Your task to perform on an android device: turn pop-ups on in chrome Image 0: 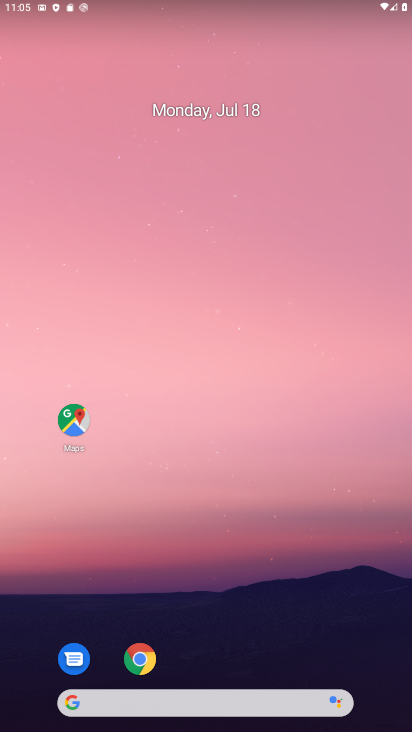
Step 0: click (147, 663)
Your task to perform on an android device: turn pop-ups on in chrome Image 1: 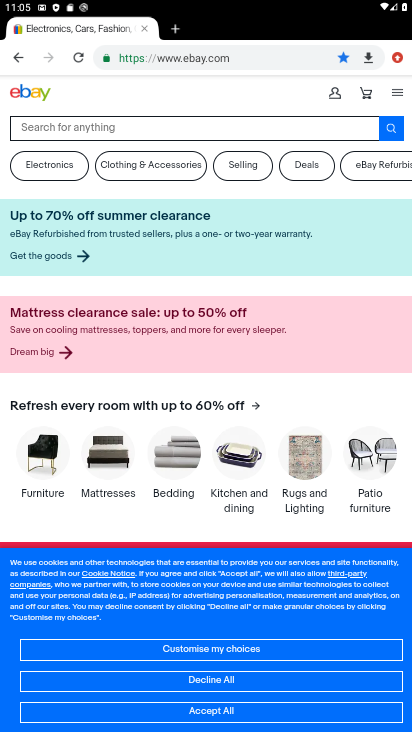
Step 1: drag from (400, 58) to (275, 422)
Your task to perform on an android device: turn pop-ups on in chrome Image 2: 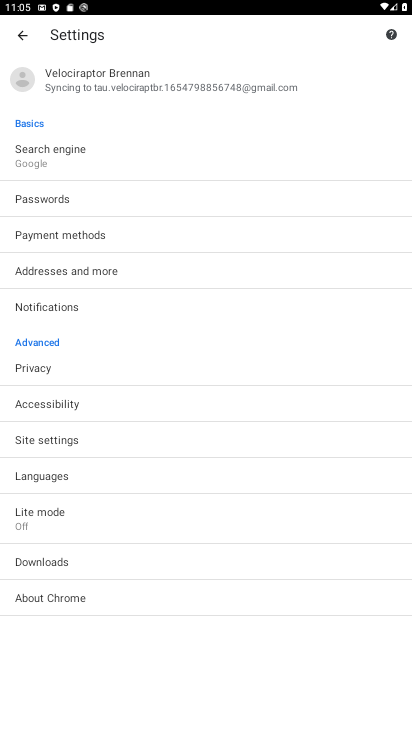
Step 2: click (40, 447)
Your task to perform on an android device: turn pop-ups on in chrome Image 3: 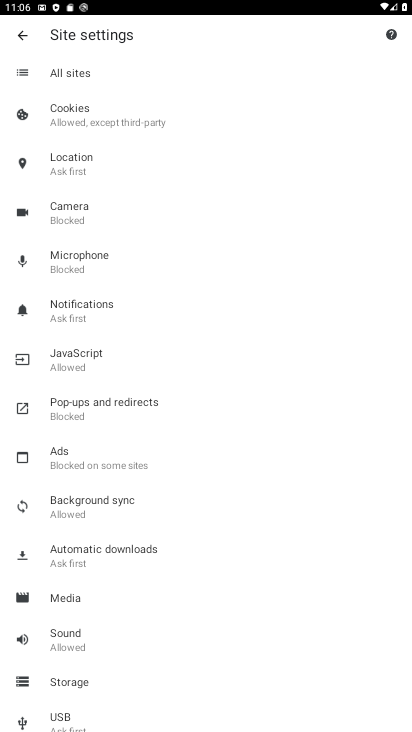
Step 3: click (77, 419)
Your task to perform on an android device: turn pop-ups on in chrome Image 4: 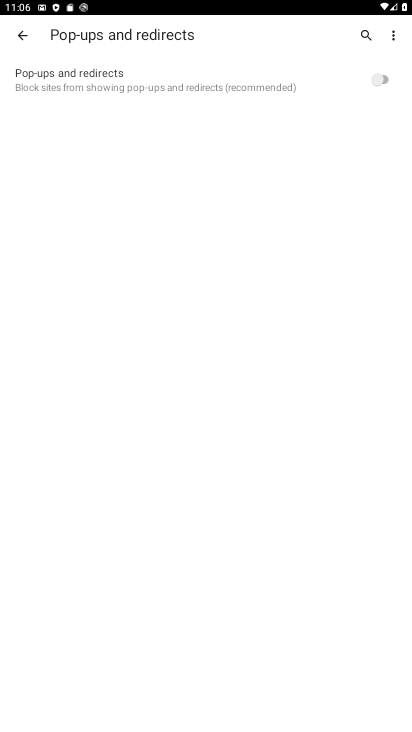
Step 4: click (381, 76)
Your task to perform on an android device: turn pop-ups on in chrome Image 5: 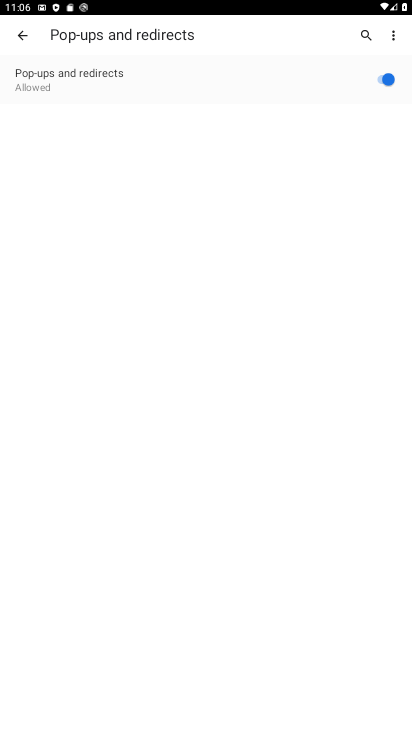
Step 5: task complete